Your task to perform on an android device: What's the weather today? Image 0: 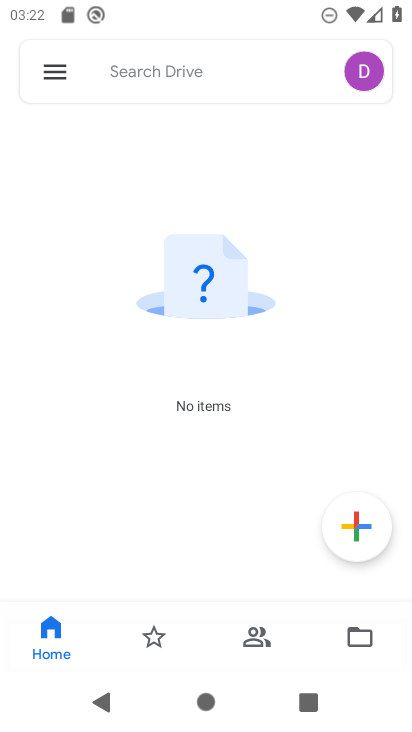
Step 0: press home button
Your task to perform on an android device: What's the weather today? Image 1: 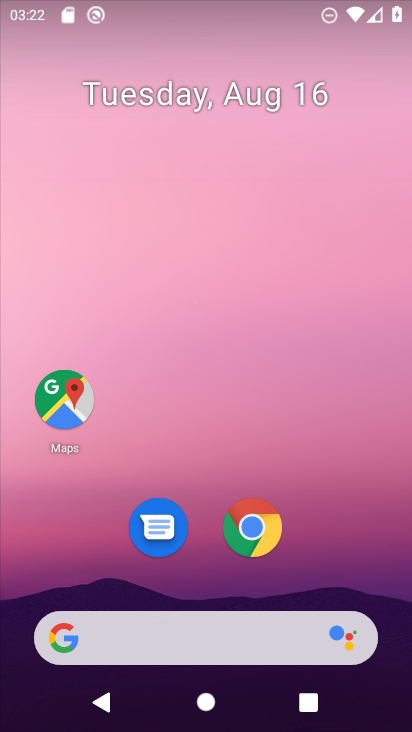
Step 1: press home button
Your task to perform on an android device: What's the weather today? Image 2: 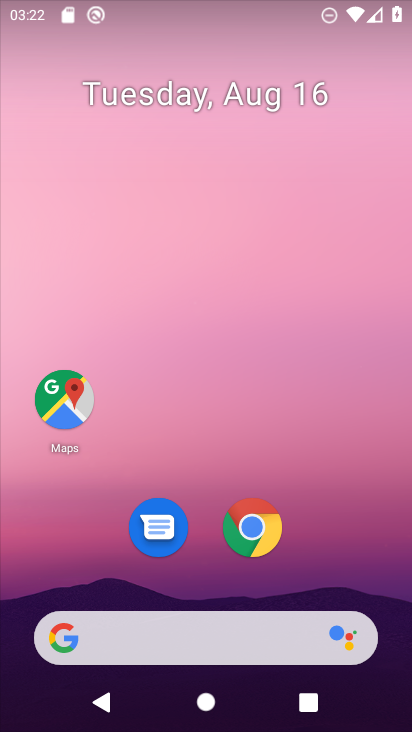
Step 2: drag from (201, 584) to (206, 39)
Your task to perform on an android device: What's the weather today? Image 3: 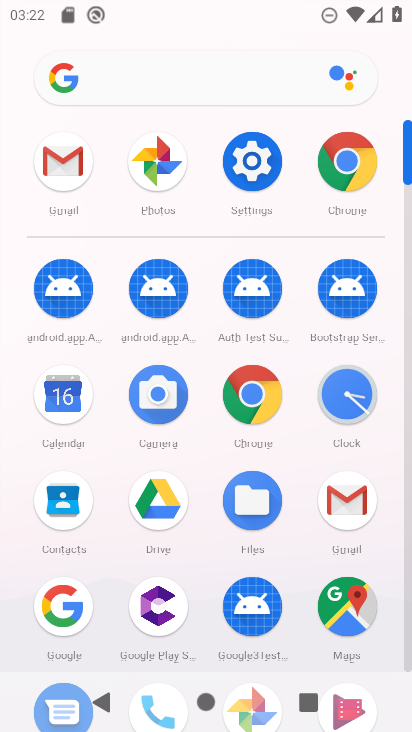
Step 3: click (134, 78)
Your task to perform on an android device: What's the weather today? Image 4: 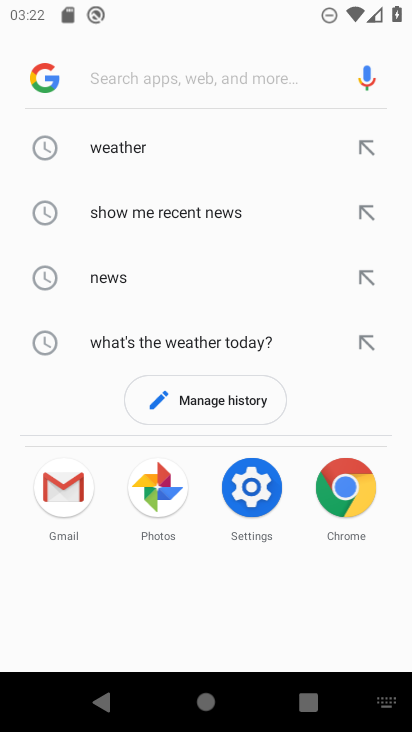
Step 4: click (157, 146)
Your task to perform on an android device: What's the weather today? Image 5: 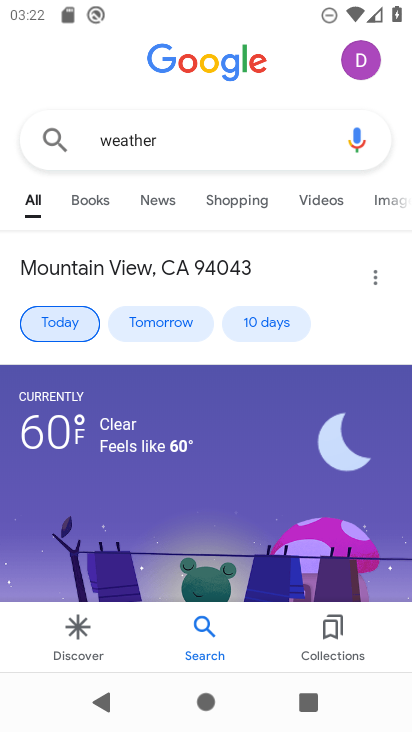
Step 5: task complete